Your task to perform on an android device: turn off location Image 0: 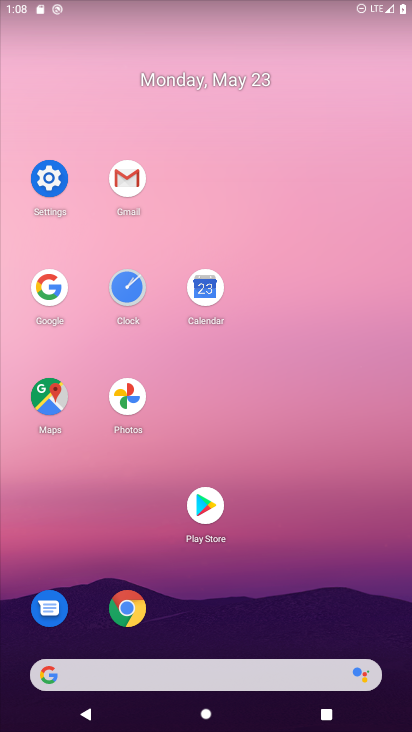
Step 0: click (44, 174)
Your task to perform on an android device: turn off location Image 1: 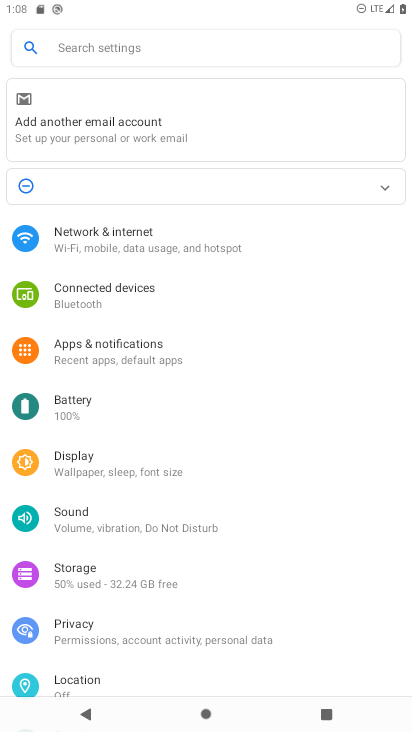
Step 1: click (168, 675)
Your task to perform on an android device: turn off location Image 2: 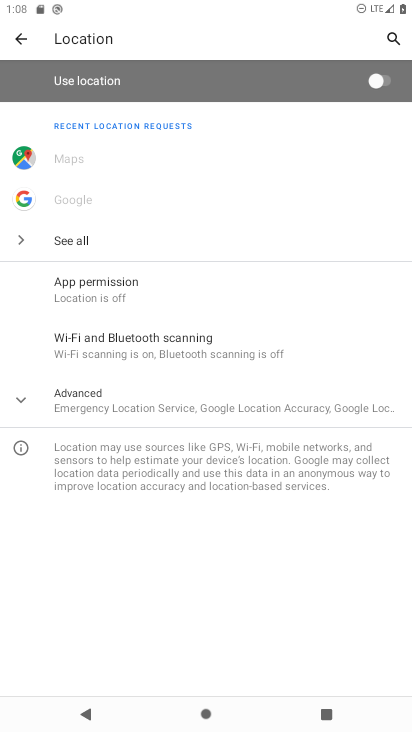
Step 2: task complete